Your task to perform on an android device: Search for Mexican restaurants on Maps Image 0: 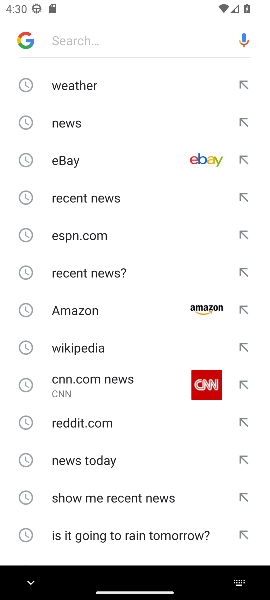
Step 0: press home button
Your task to perform on an android device: Search for Mexican restaurants on Maps Image 1: 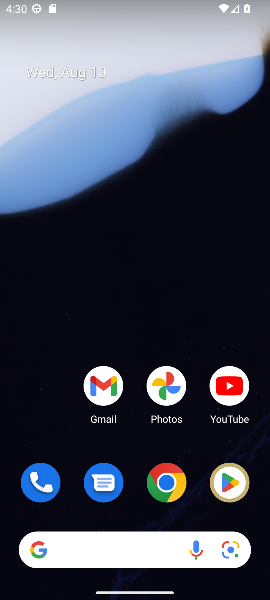
Step 1: drag from (60, 391) to (108, 32)
Your task to perform on an android device: Search for Mexican restaurants on Maps Image 2: 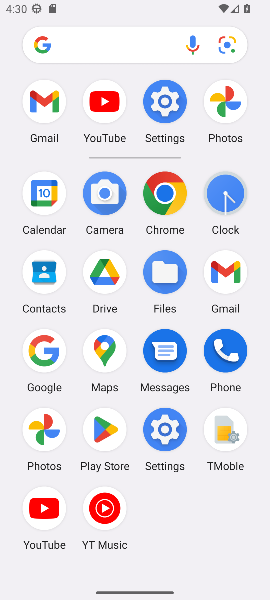
Step 2: click (104, 342)
Your task to perform on an android device: Search for Mexican restaurants on Maps Image 3: 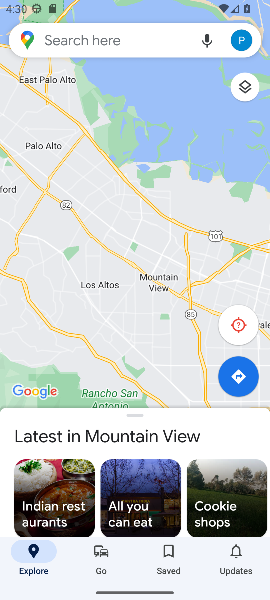
Step 3: click (136, 39)
Your task to perform on an android device: Search for Mexican restaurants on Maps Image 4: 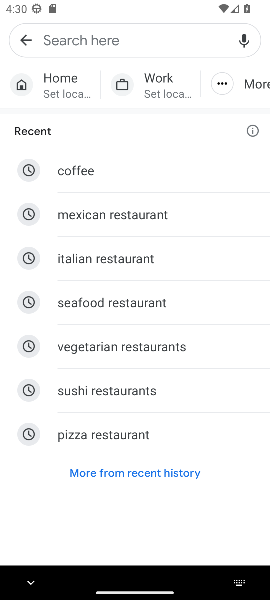
Step 4: click (127, 206)
Your task to perform on an android device: Search for Mexican restaurants on Maps Image 5: 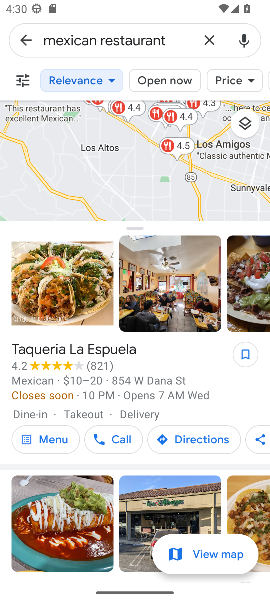
Step 5: task complete